Your task to perform on an android device: change the clock display to analog Image 0: 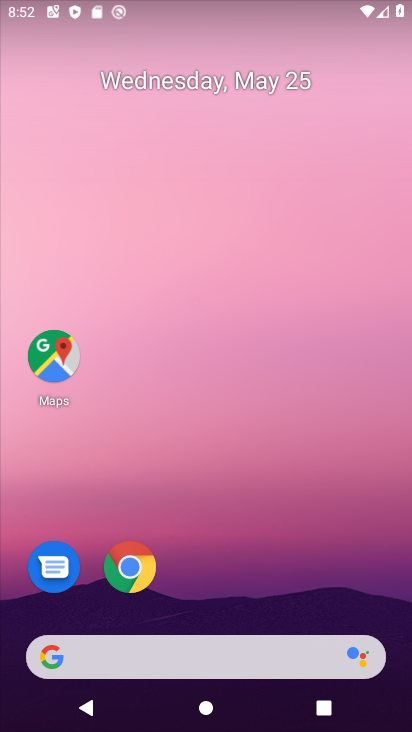
Step 0: drag from (239, 261) to (244, 54)
Your task to perform on an android device: change the clock display to analog Image 1: 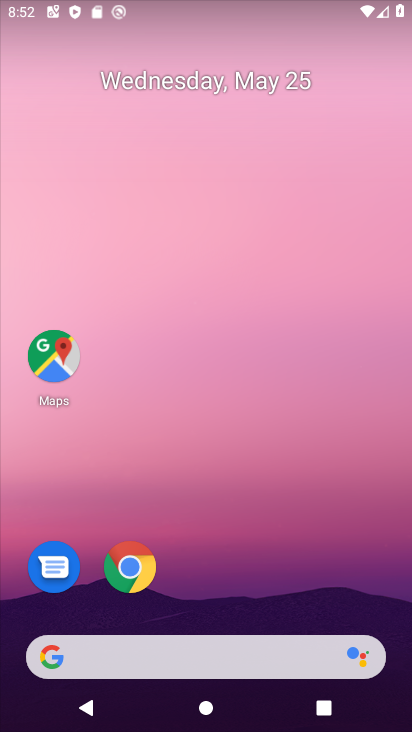
Step 1: drag from (249, 531) to (309, 41)
Your task to perform on an android device: change the clock display to analog Image 2: 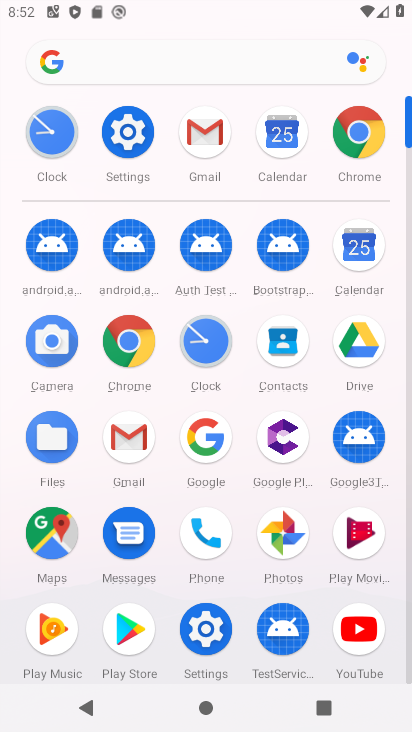
Step 2: click (208, 331)
Your task to perform on an android device: change the clock display to analog Image 3: 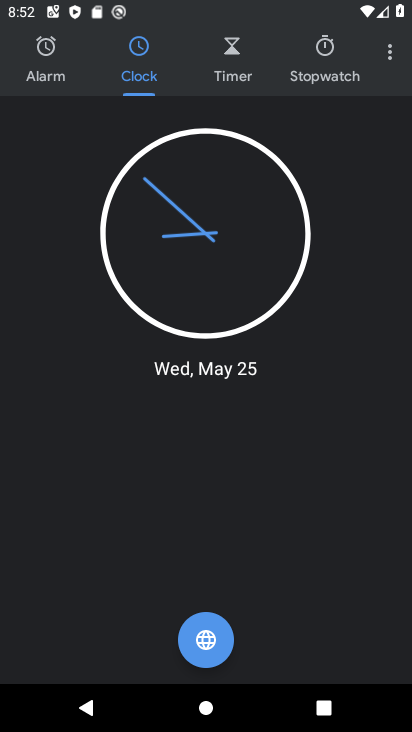
Step 3: task complete